Your task to perform on an android device: What is the news today? Image 0: 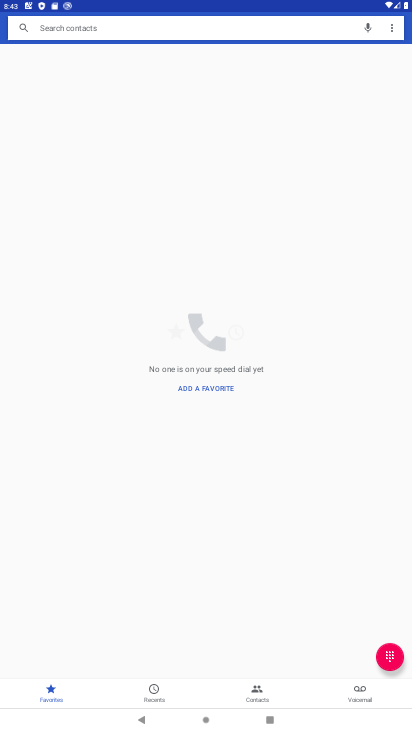
Step 0: press home button
Your task to perform on an android device: What is the news today? Image 1: 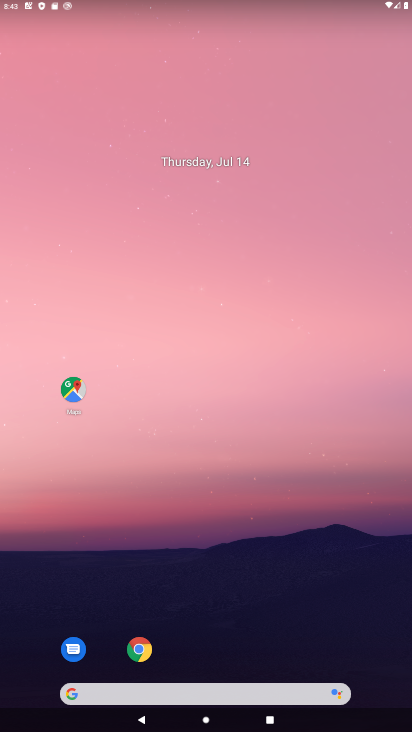
Step 1: click (151, 695)
Your task to perform on an android device: What is the news today? Image 2: 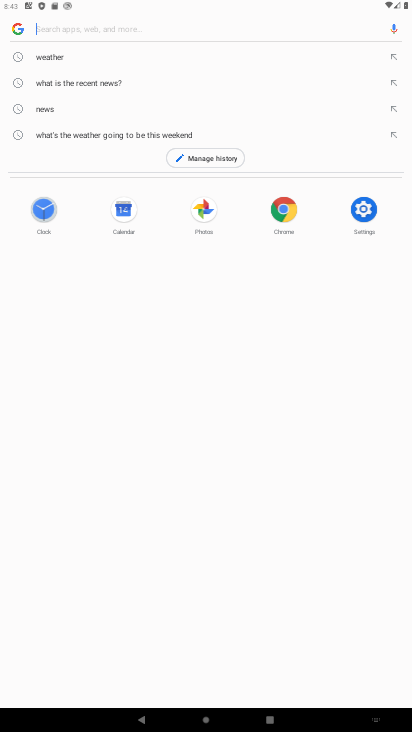
Step 2: type "news today "
Your task to perform on an android device: What is the news today? Image 3: 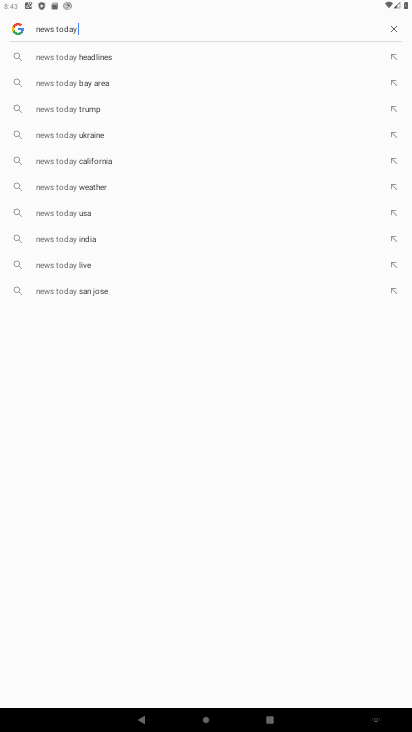
Step 3: press enter
Your task to perform on an android device: What is the news today? Image 4: 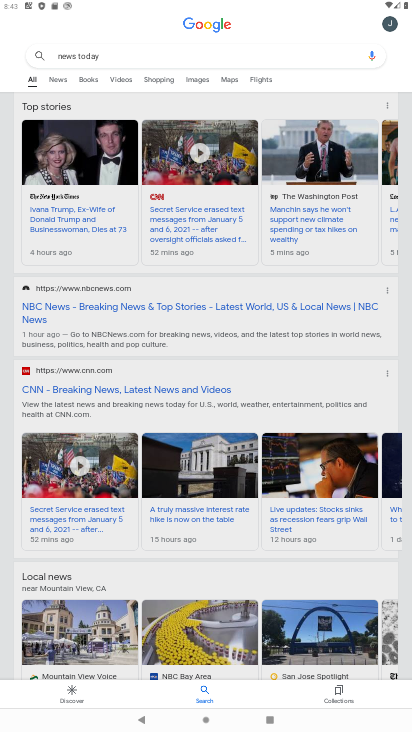
Step 4: task complete